Your task to perform on an android device: delete location history Image 0: 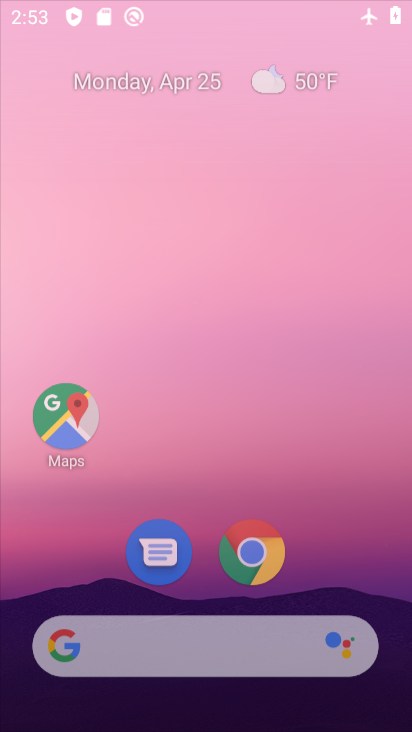
Step 0: click (341, 63)
Your task to perform on an android device: delete location history Image 1: 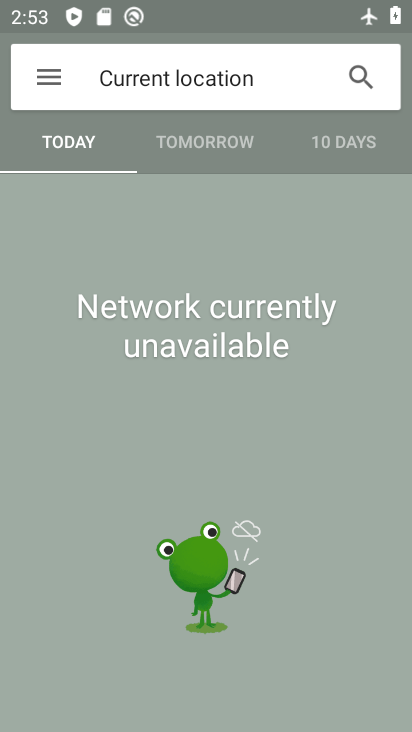
Step 1: press home button
Your task to perform on an android device: delete location history Image 2: 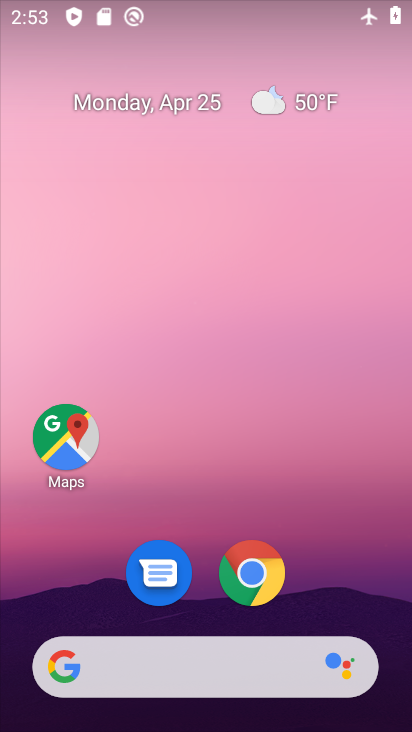
Step 2: drag from (379, 552) to (380, 96)
Your task to perform on an android device: delete location history Image 3: 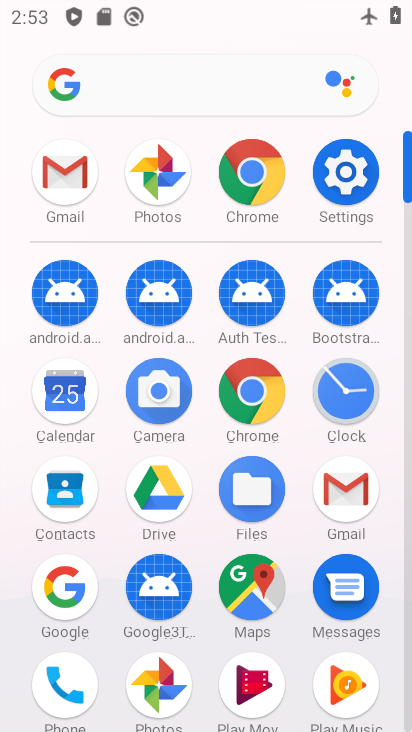
Step 3: click (243, 592)
Your task to perform on an android device: delete location history Image 4: 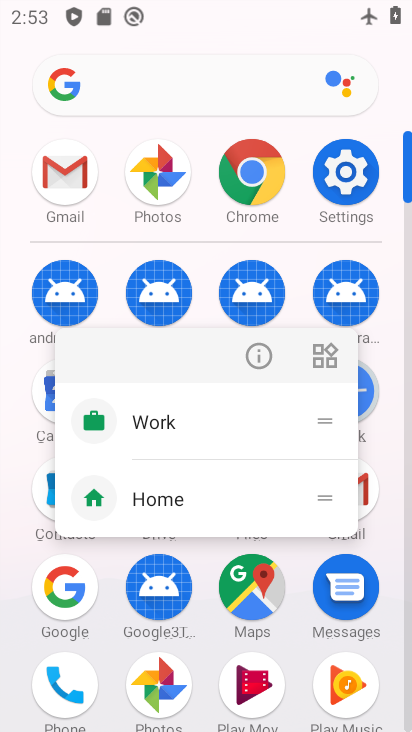
Step 4: click (344, 176)
Your task to perform on an android device: delete location history Image 5: 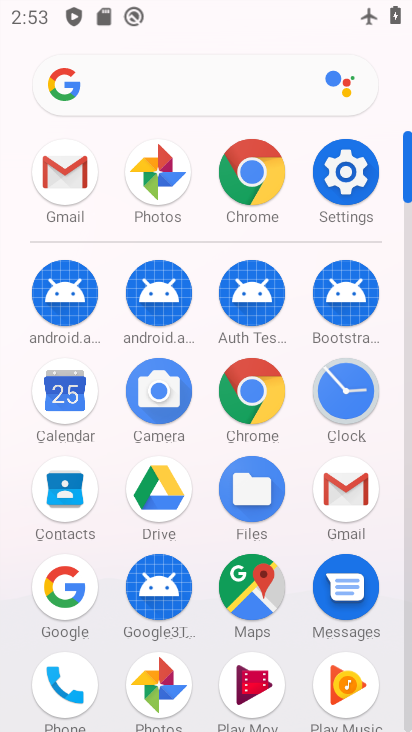
Step 5: click (234, 586)
Your task to perform on an android device: delete location history Image 6: 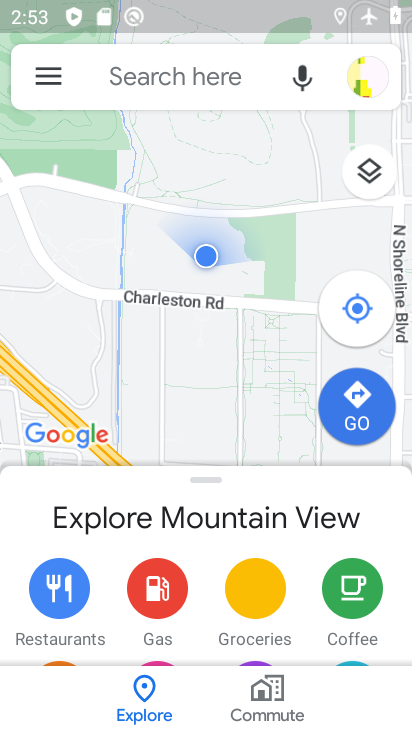
Step 6: click (46, 72)
Your task to perform on an android device: delete location history Image 7: 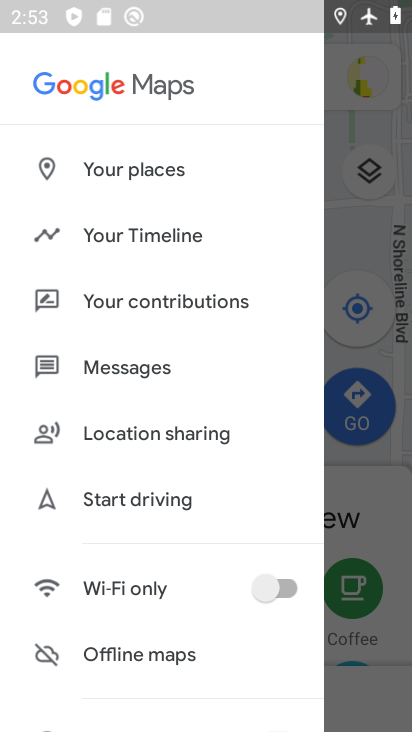
Step 7: drag from (154, 314) to (169, 125)
Your task to perform on an android device: delete location history Image 8: 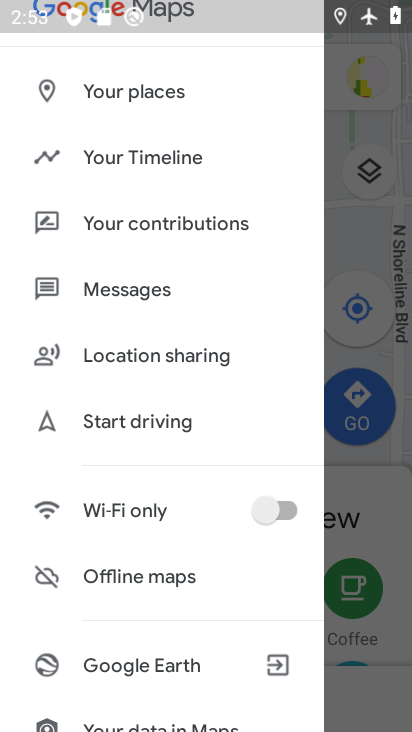
Step 8: drag from (191, 283) to (177, 492)
Your task to perform on an android device: delete location history Image 9: 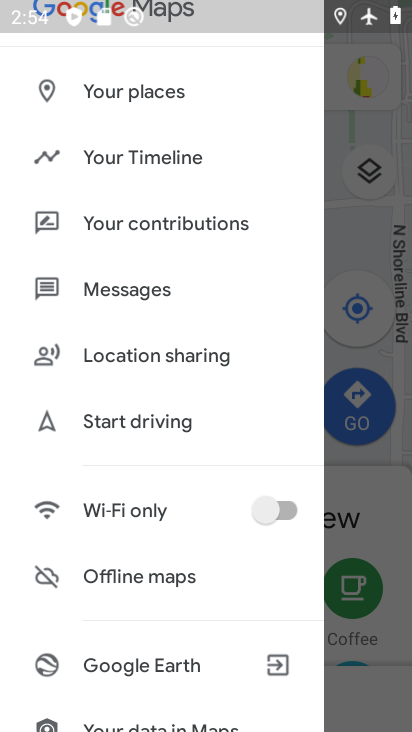
Step 9: drag from (156, 213) to (167, 523)
Your task to perform on an android device: delete location history Image 10: 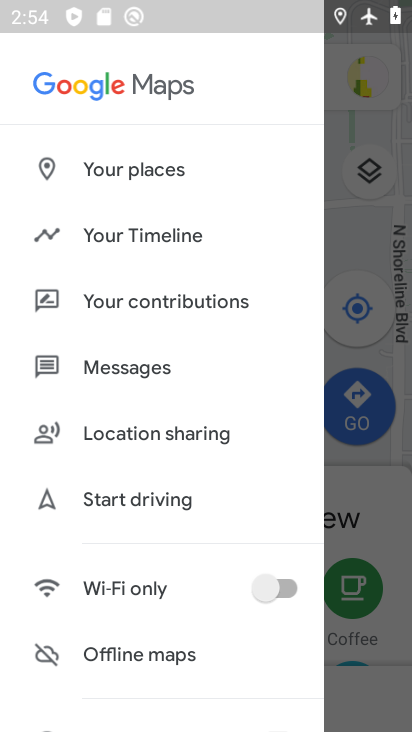
Step 10: click (180, 242)
Your task to perform on an android device: delete location history Image 11: 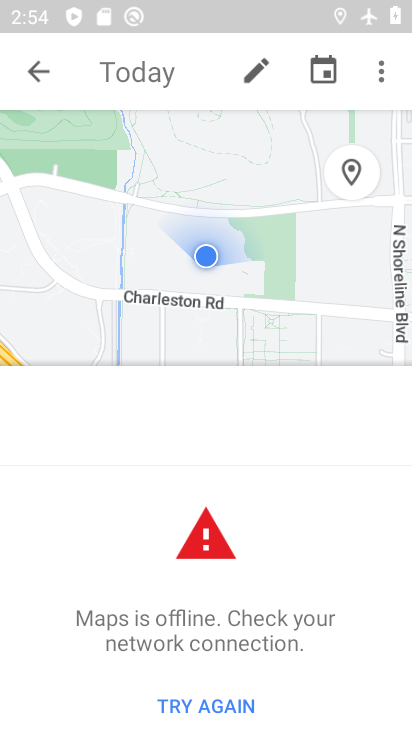
Step 11: click (388, 65)
Your task to perform on an android device: delete location history Image 12: 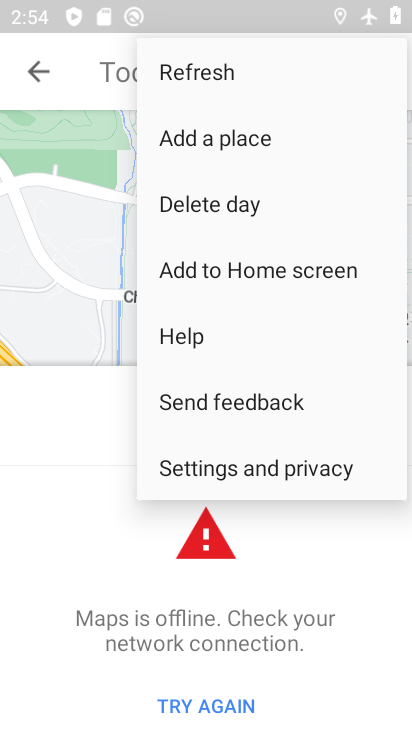
Step 12: click (208, 475)
Your task to perform on an android device: delete location history Image 13: 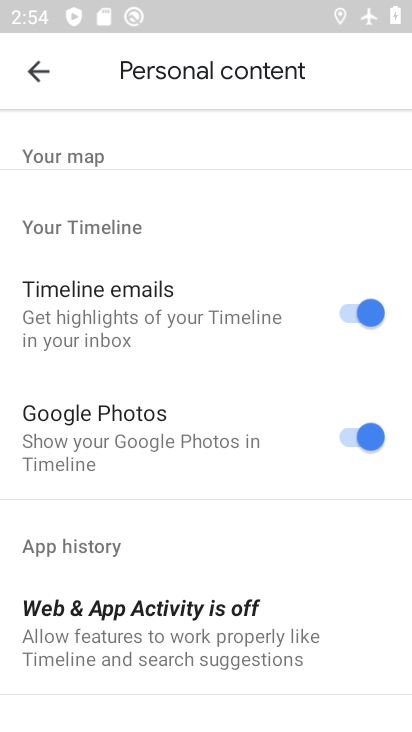
Step 13: drag from (169, 590) to (170, 233)
Your task to perform on an android device: delete location history Image 14: 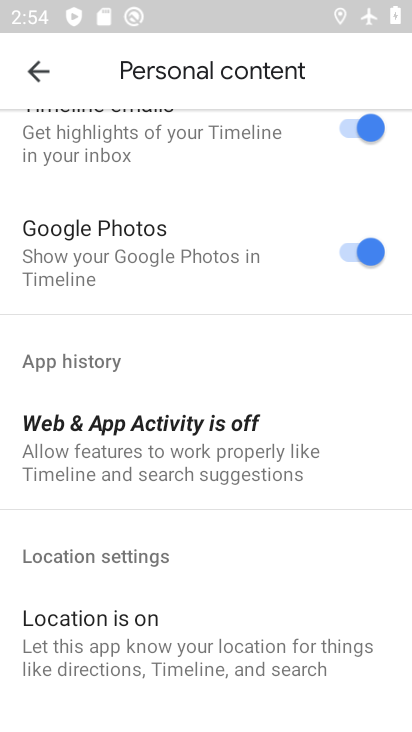
Step 14: drag from (203, 288) to (217, 235)
Your task to perform on an android device: delete location history Image 15: 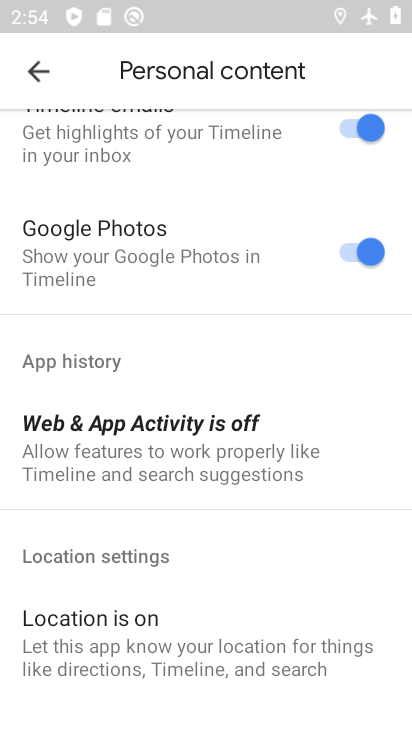
Step 15: drag from (204, 512) to (222, 170)
Your task to perform on an android device: delete location history Image 16: 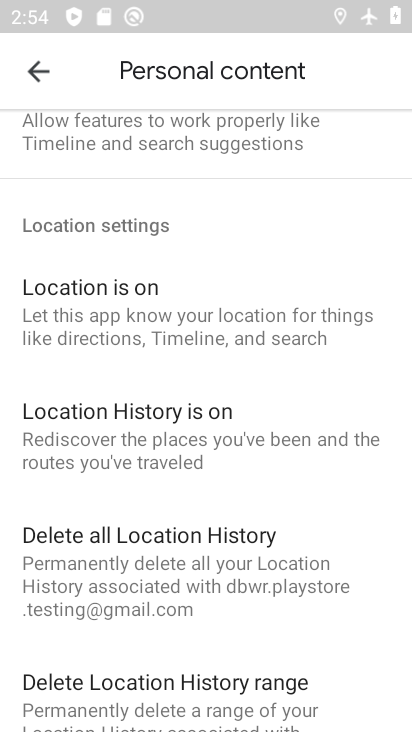
Step 16: click (163, 562)
Your task to perform on an android device: delete location history Image 17: 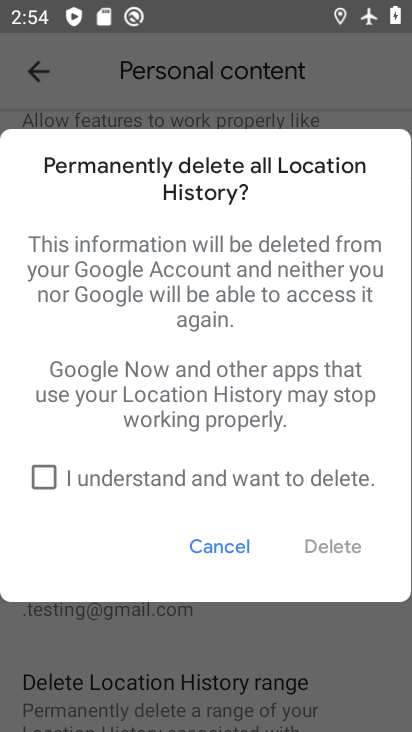
Step 17: click (44, 468)
Your task to perform on an android device: delete location history Image 18: 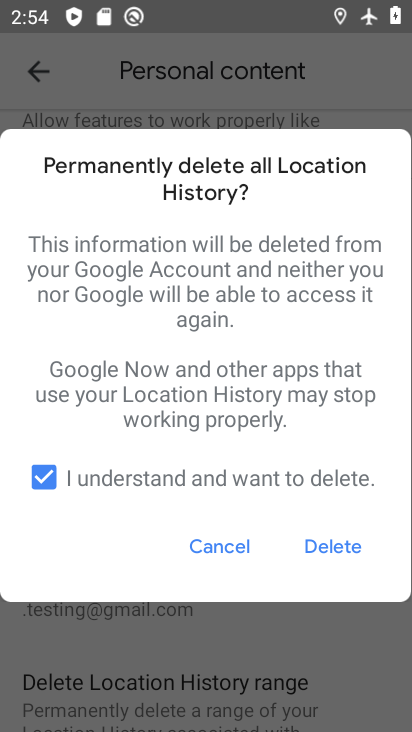
Step 18: click (326, 551)
Your task to perform on an android device: delete location history Image 19: 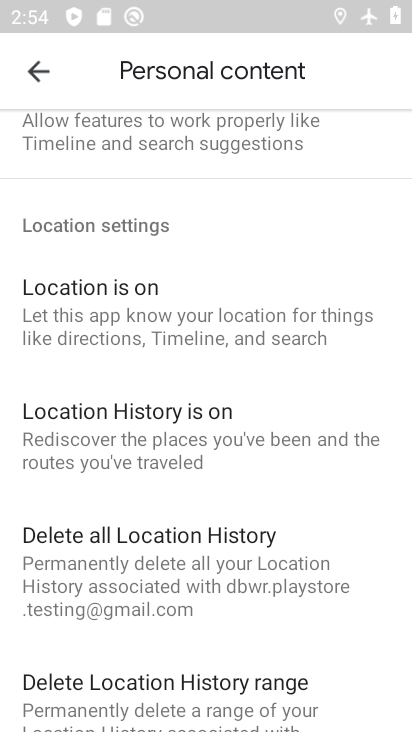
Step 19: task complete